Your task to perform on an android device: Open the phone app and click the voicemail tab. Image 0: 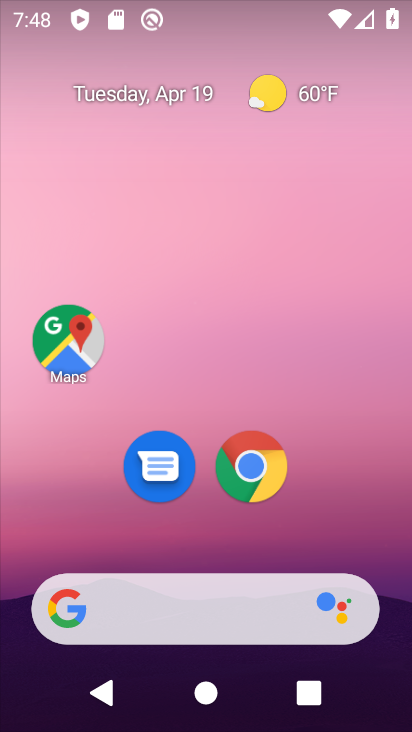
Step 0: drag from (193, 606) to (257, 123)
Your task to perform on an android device: Open the phone app and click the voicemail tab. Image 1: 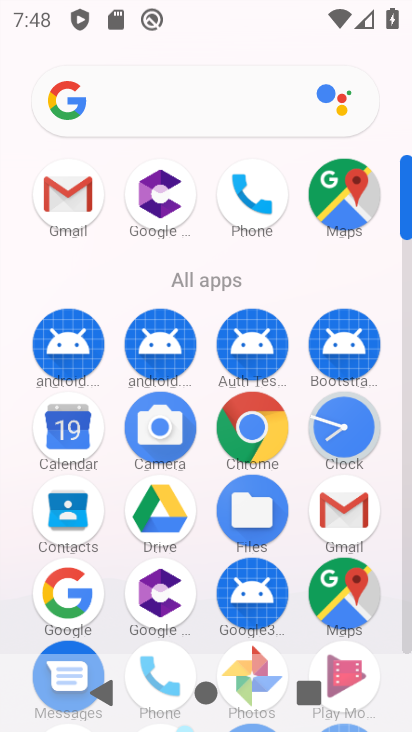
Step 1: drag from (285, 629) to (305, 277)
Your task to perform on an android device: Open the phone app and click the voicemail tab. Image 2: 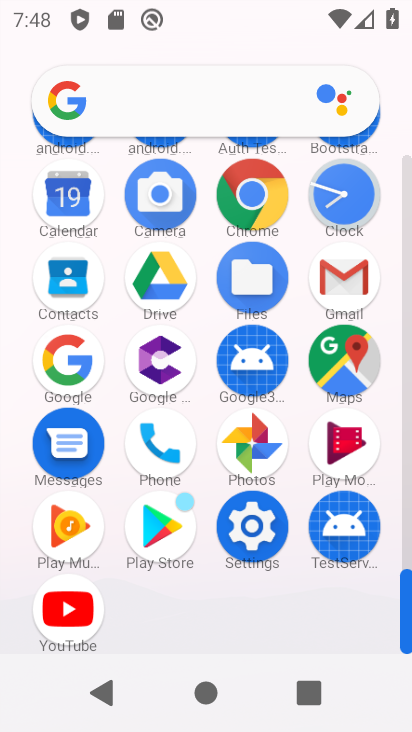
Step 2: click (158, 436)
Your task to perform on an android device: Open the phone app and click the voicemail tab. Image 3: 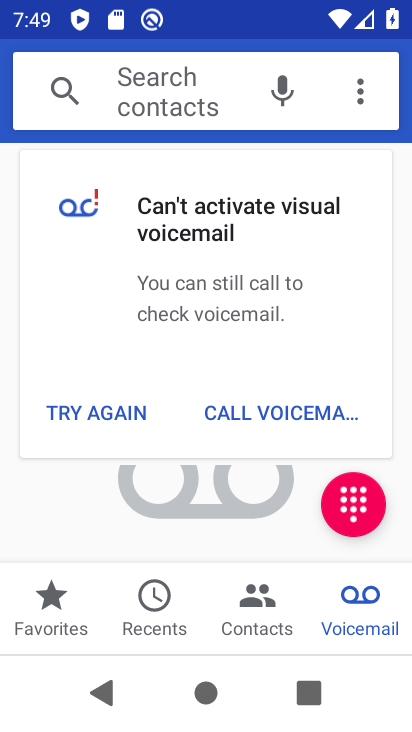
Step 3: click (87, 404)
Your task to perform on an android device: Open the phone app and click the voicemail tab. Image 4: 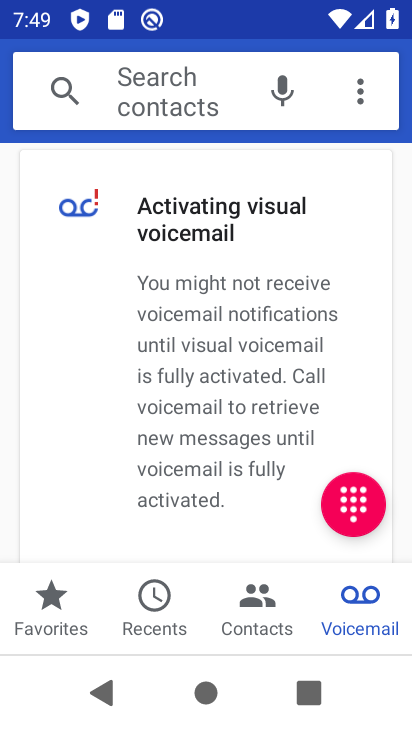
Step 4: click (340, 613)
Your task to perform on an android device: Open the phone app and click the voicemail tab. Image 5: 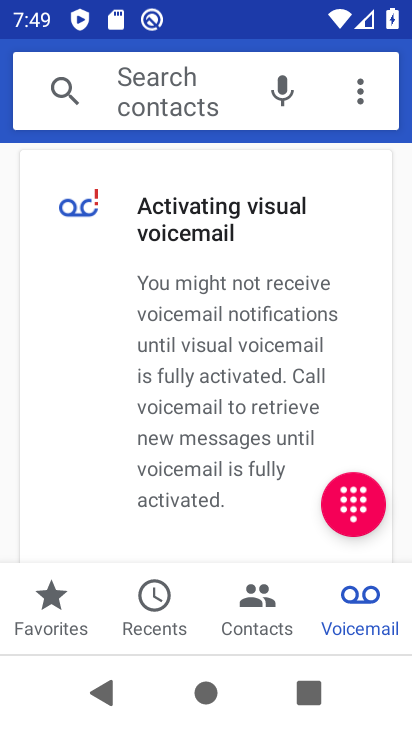
Step 5: task complete